Your task to perform on an android device: Open Chrome and go to settings Image 0: 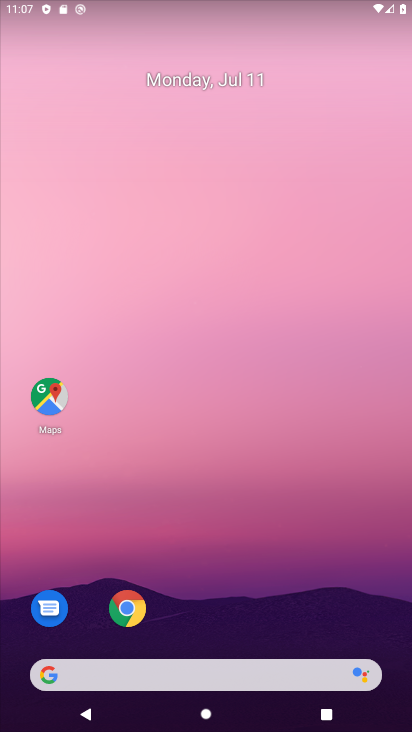
Step 0: click (140, 603)
Your task to perform on an android device: Open Chrome and go to settings Image 1: 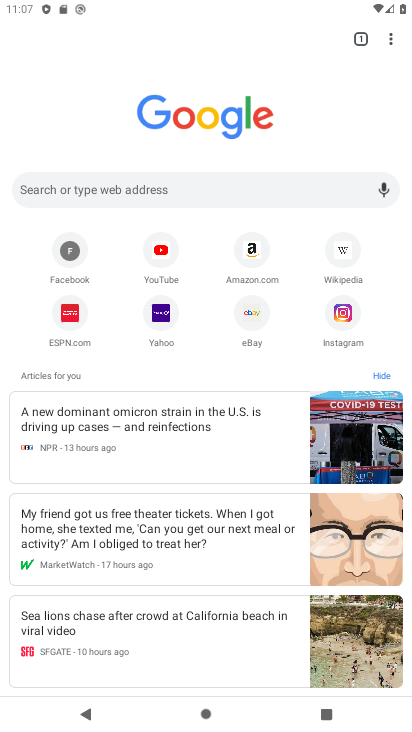
Step 1: click (396, 28)
Your task to perform on an android device: Open Chrome and go to settings Image 2: 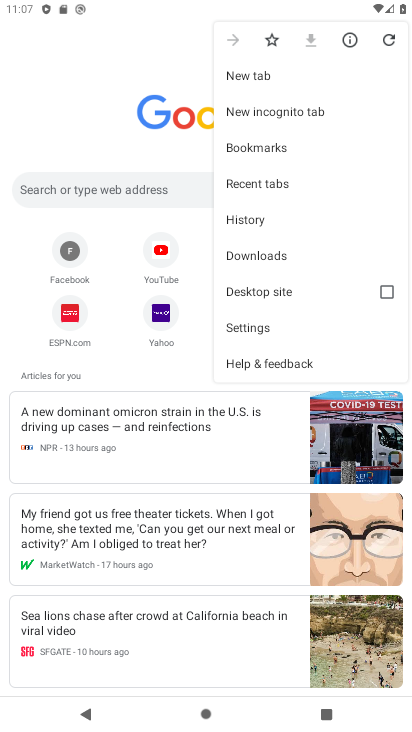
Step 2: click (253, 331)
Your task to perform on an android device: Open Chrome and go to settings Image 3: 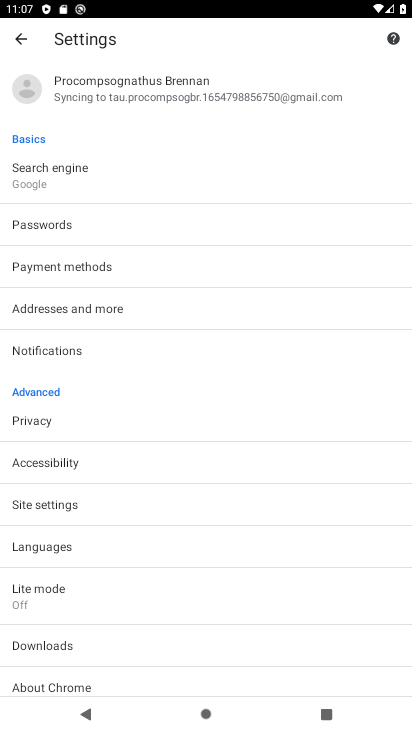
Step 3: task complete